Your task to perform on an android device: Clear the shopping cart on costco.com. Add lg ultragear to the cart on costco.com, then select checkout. Image 0: 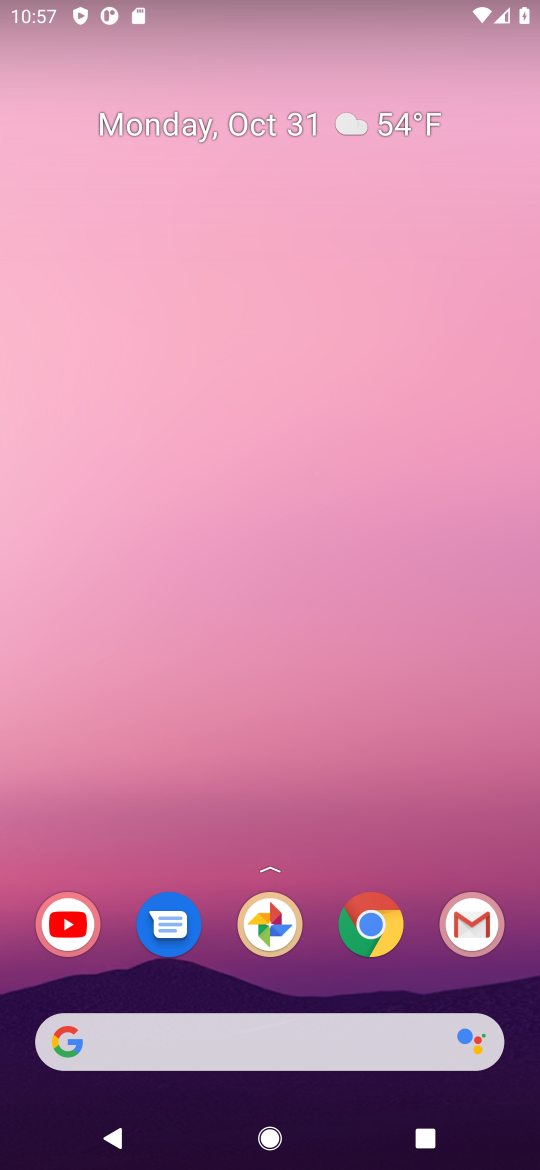
Step 0: press home button
Your task to perform on an android device: Clear the shopping cart on costco.com. Add lg ultragear to the cart on costco.com, then select checkout. Image 1: 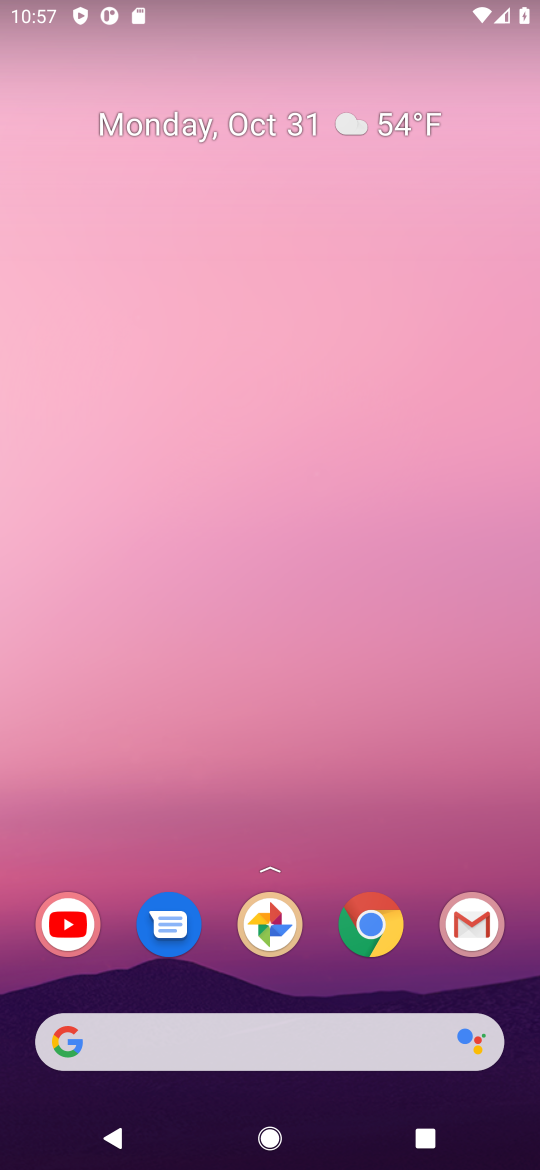
Step 1: click (392, 949)
Your task to perform on an android device: Clear the shopping cart on costco.com. Add lg ultragear to the cart on costco.com, then select checkout. Image 2: 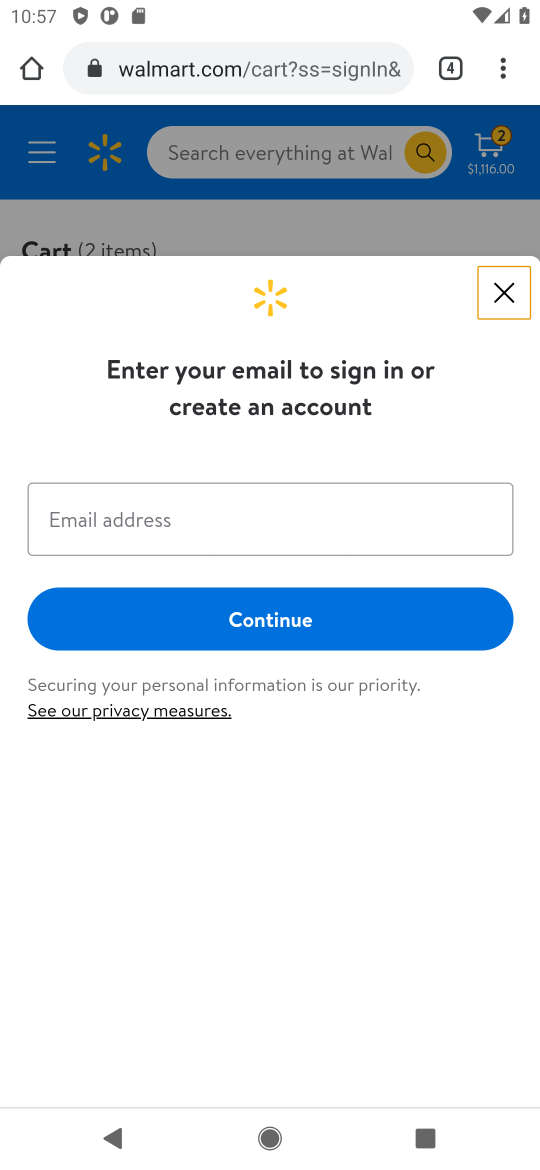
Step 2: click (273, 75)
Your task to perform on an android device: Clear the shopping cart on costco.com. Add lg ultragear to the cart on costco.com, then select checkout. Image 3: 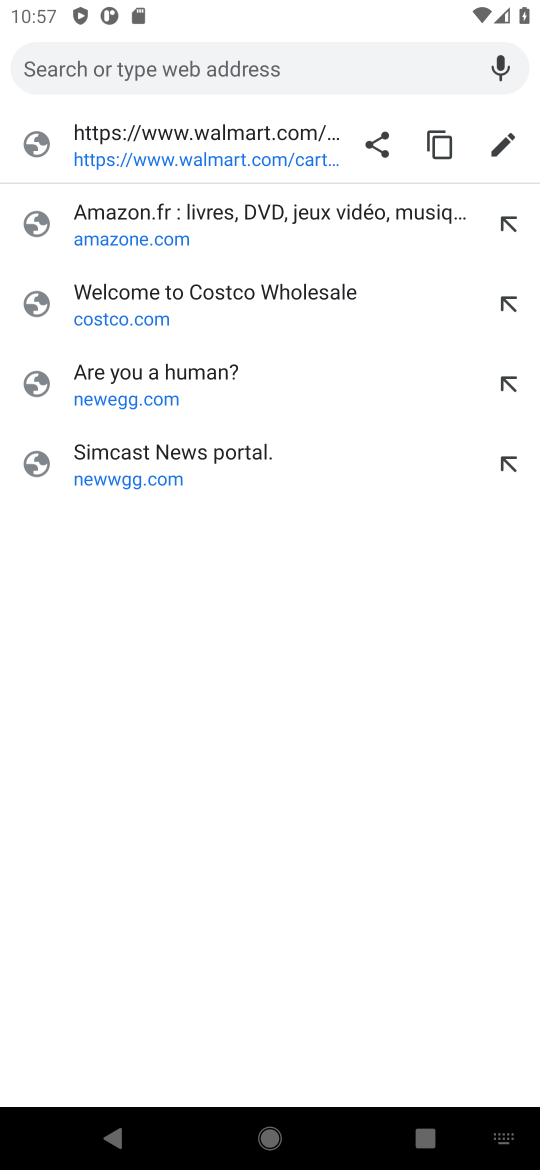
Step 3: type "costco.com"
Your task to perform on an android device: Clear the shopping cart on costco.com. Add lg ultragear to the cart on costco.com, then select checkout. Image 4: 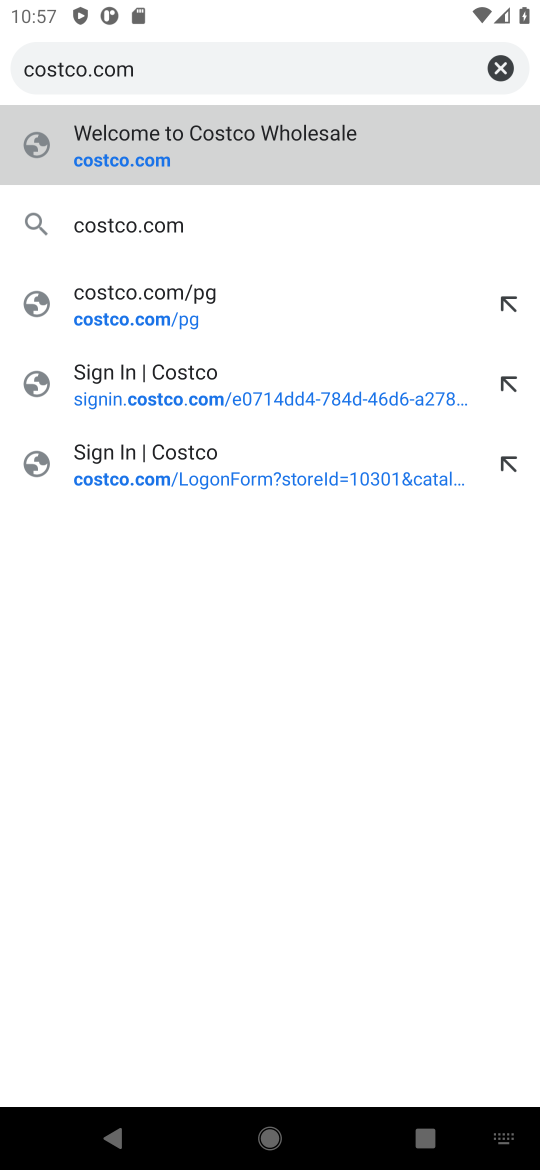
Step 4: type ""
Your task to perform on an android device: Clear the shopping cart on costco.com. Add lg ultragear to the cart on costco.com, then select checkout. Image 5: 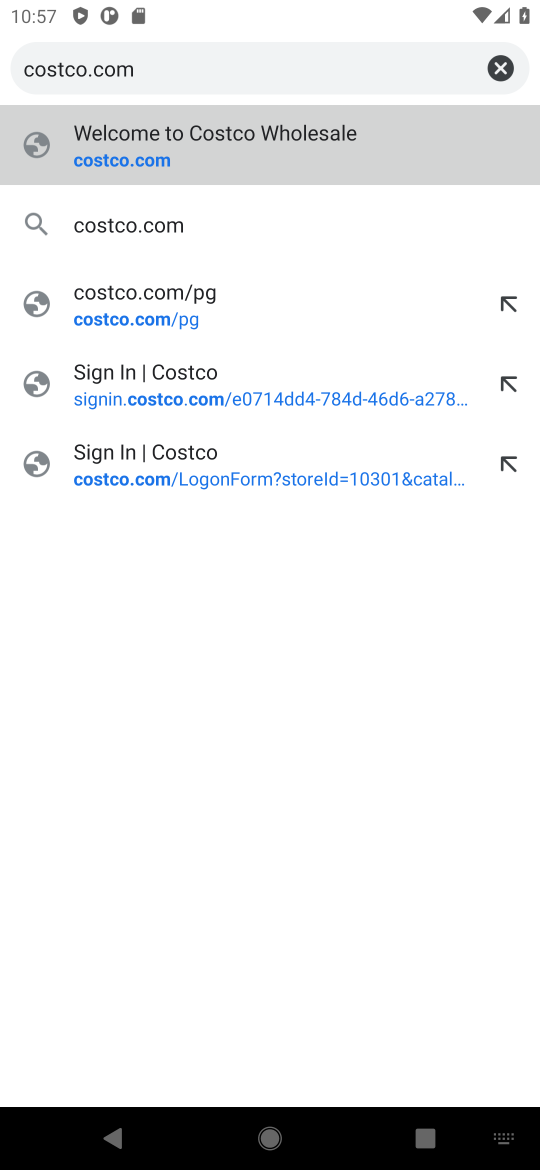
Step 5: click (214, 150)
Your task to perform on an android device: Clear the shopping cart on costco.com. Add lg ultragear to the cart on costco.com, then select checkout. Image 6: 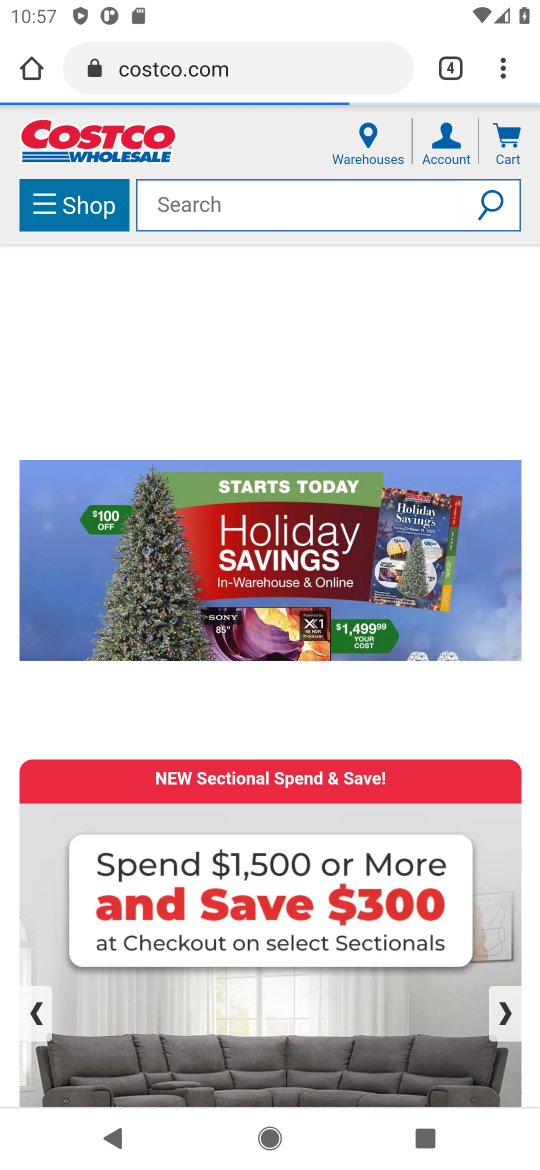
Step 6: click (224, 210)
Your task to perform on an android device: Clear the shopping cart on costco.com. Add lg ultragear to the cart on costco.com, then select checkout. Image 7: 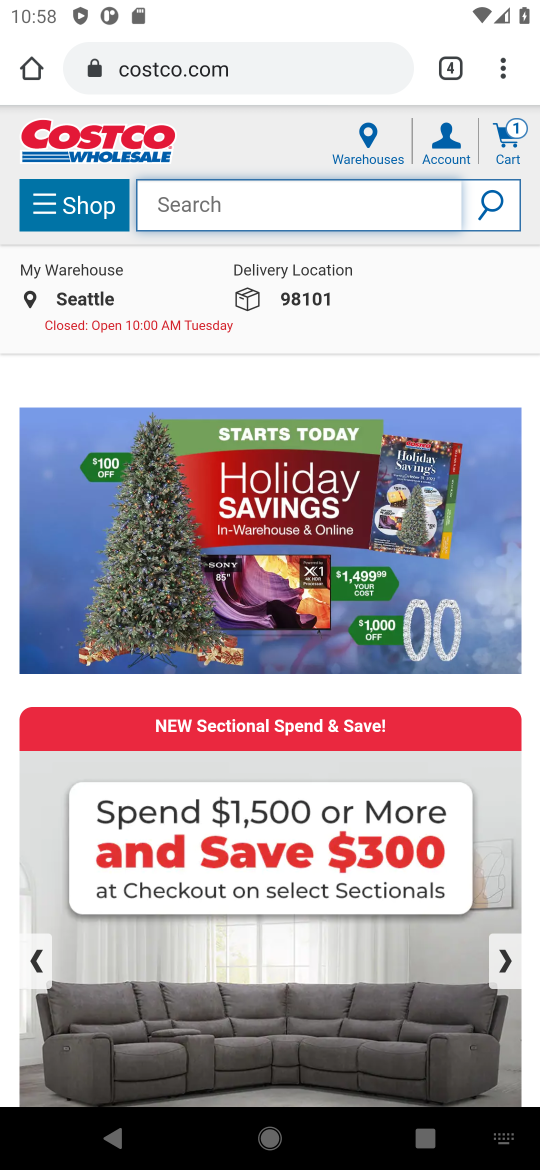
Step 7: type "lg ultragear"
Your task to perform on an android device: Clear the shopping cart on costco.com. Add lg ultragear to the cart on costco.com, then select checkout. Image 8: 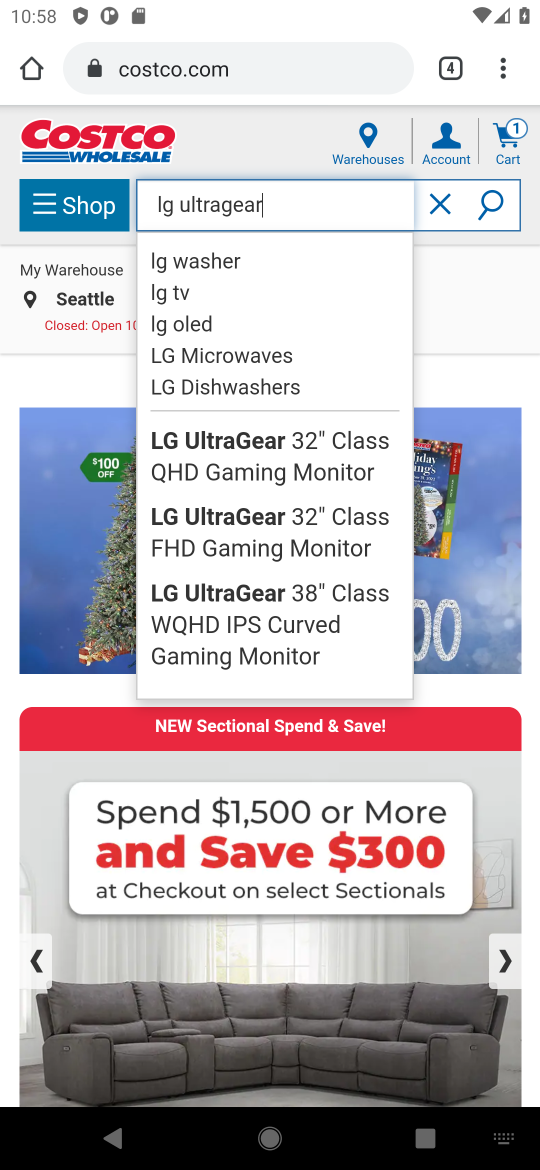
Step 8: click (338, 455)
Your task to perform on an android device: Clear the shopping cart on costco.com. Add lg ultragear to the cart on costco.com, then select checkout. Image 9: 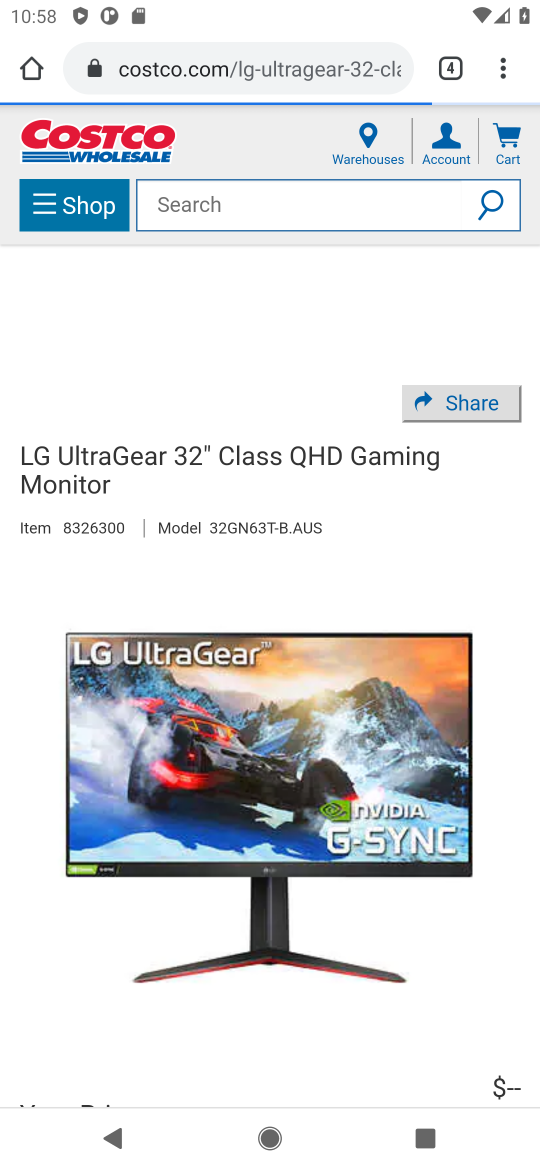
Step 9: click (253, 784)
Your task to perform on an android device: Clear the shopping cart on costco.com. Add lg ultragear to the cart on costco.com, then select checkout. Image 10: 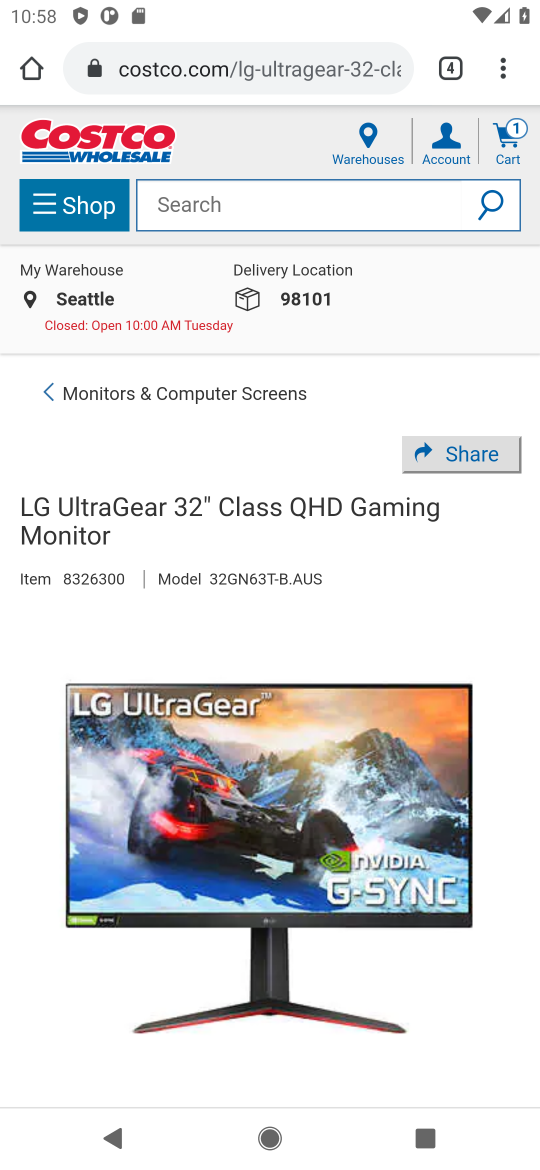
Step 10: drag from (254, 810) to (294, 433)
Your task to perform on an android device: Clear the shopping cart on costco.com. Add lg ultragear to the cart on costco.com, then select checkout. Image 11: 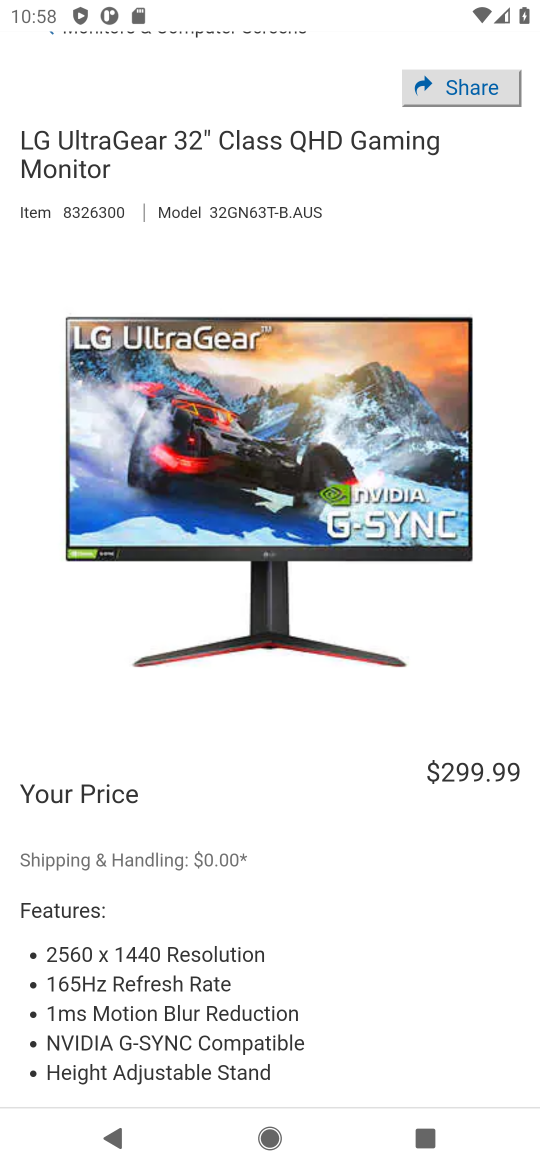
Step 11: drag from (258, 946) to (293, 542)
Your task to perform on an android device: Clear the shopping cart on costco.com. Add lg ultragear to the cart on costco.com, then select checkout. Image 12: 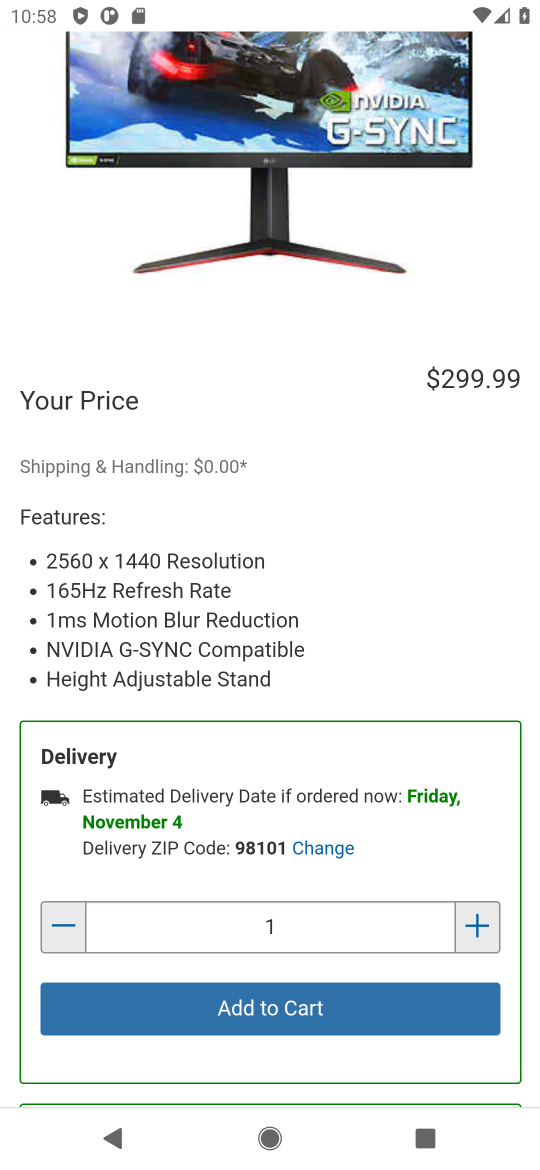
Step 12: click (285, 1005)
Your task to perform on an android device: Clear the shopping cart on costco.com. Add lg ultragear to the cart on costco.com, then select checkout. Image 13: 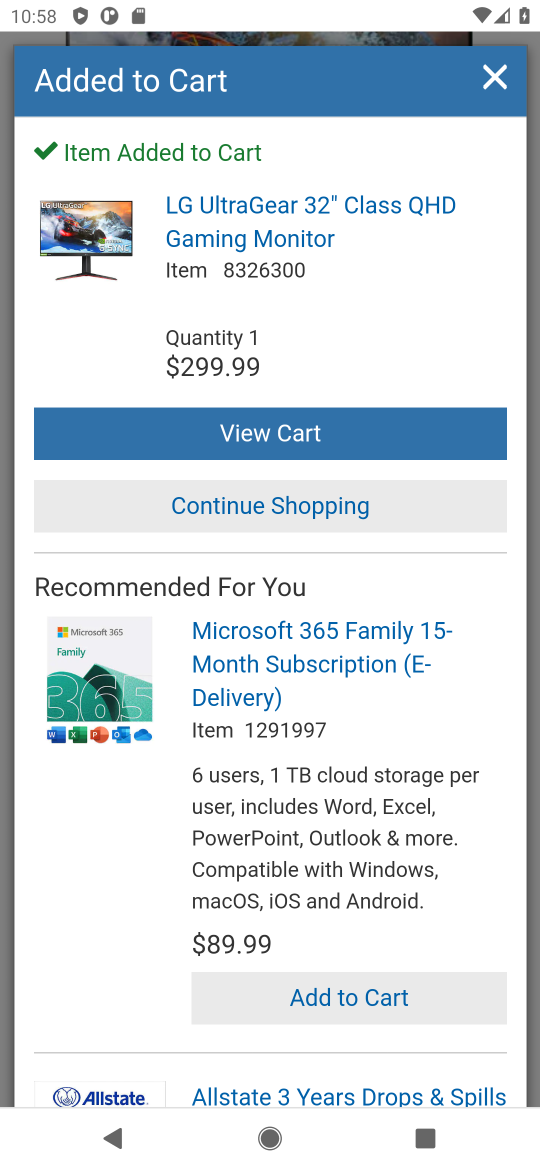
Step 13: click (498, 92)
Your task to perform on an android device: Clear the shopping cart on costco.com. Add lg ultragear to the cart on costco.com, then select checkout. Image 14: 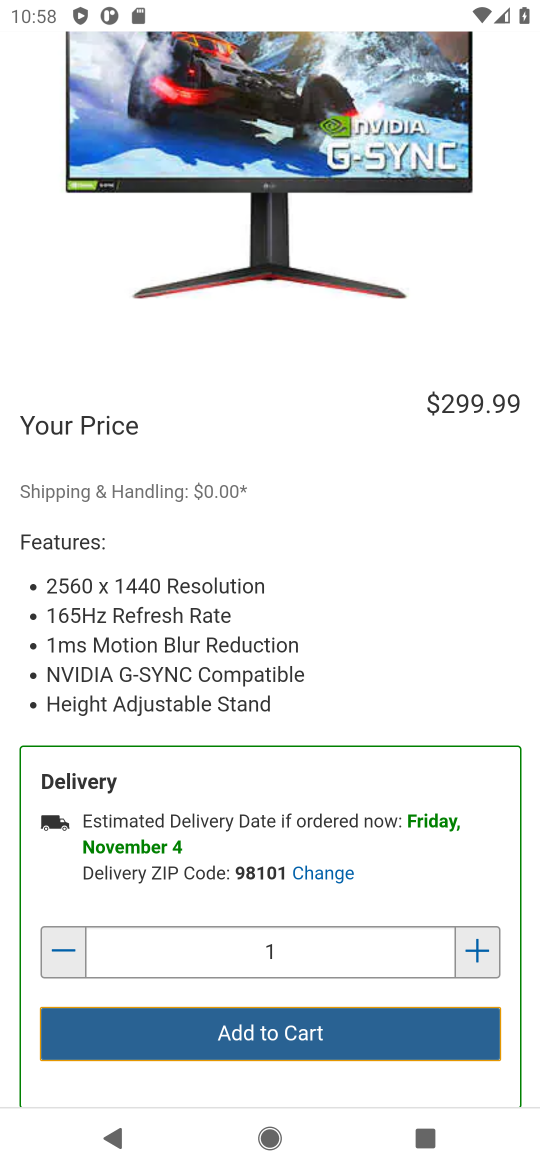
Step 14: drag from (318, 491) to (300, 1047)
Your task to perform on an android device: Clear the shopping cart on costco.com. Add lg ultragear to the cart on costco.com, then select checkout. Image 15: 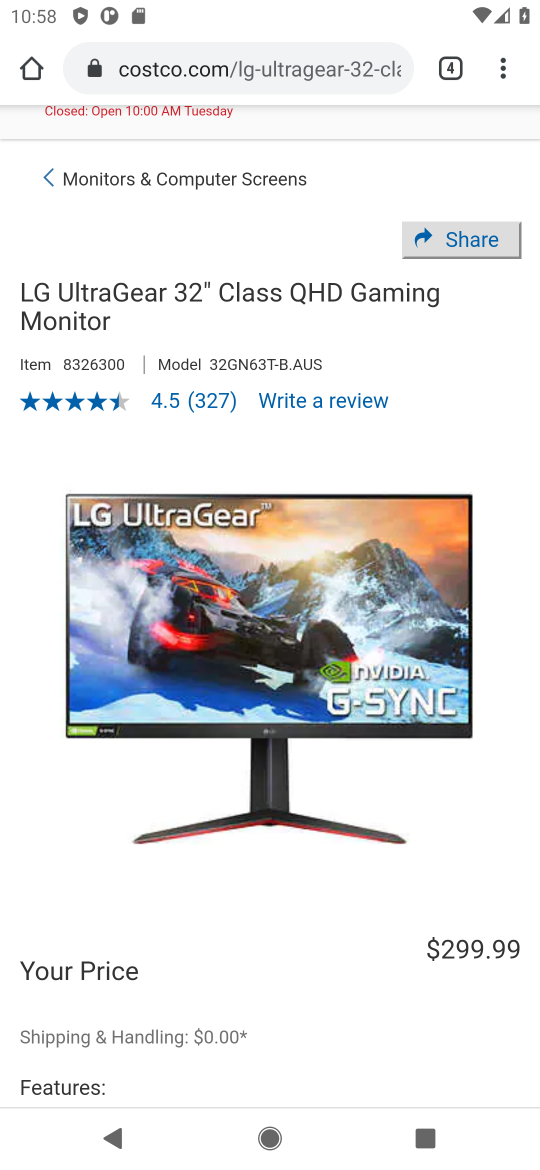
Step 15: drag from (312, 471) to (331, 1105)
Your task to perform on an android device: Clear the shopping cart on costco.com. Add lg ultragear to the cart on costco.com, then select checkout. Image 16: 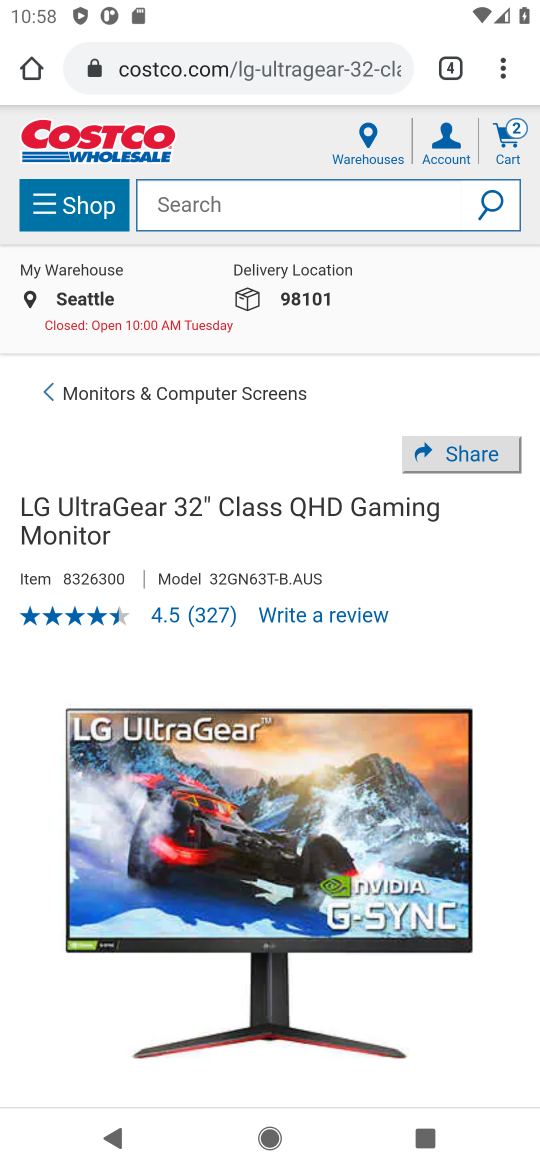
Step 16: click (506, 148)
Your task to perform on an android device: Clear the shopping cart on costco.com. Add lg ultragear to the cart on costco.com, then select checkout. Image 17: 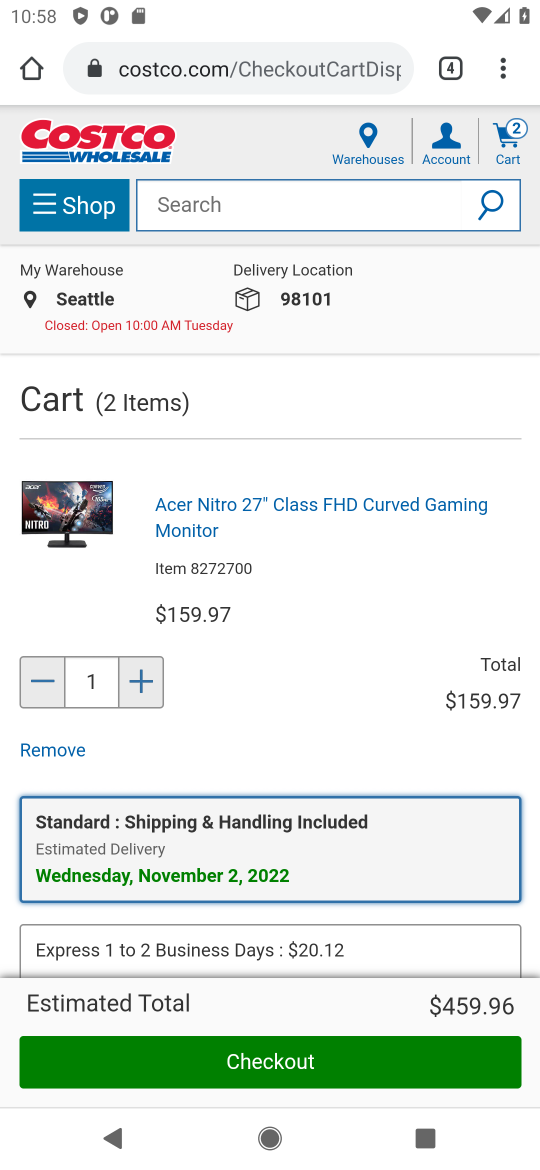
Step 17: drag from (290, 689) to (343, 402)
Your task to perform on an android device: Clear the shopping cart on costco.com. Add lg ultragear to the cart on costco.com, then select checkout. Image 18: 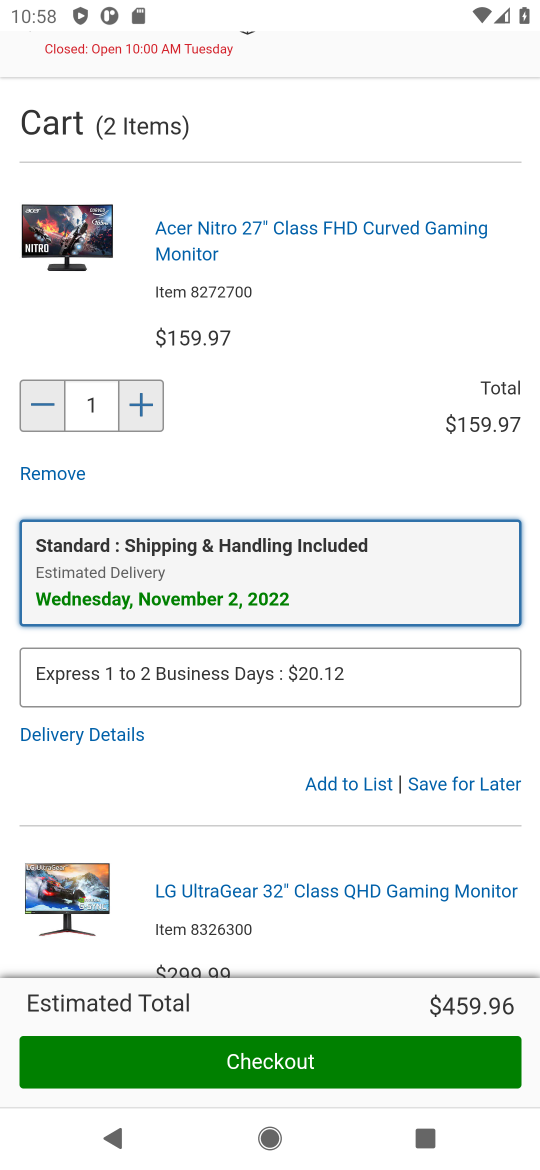
Step 18: drag from (245, 795) to (319, 529)
Your task to perform on an android device: Clear the shopping cart on costco.com. Add lg ultragear to the cart on costco.com, then select checkout. Image 19: 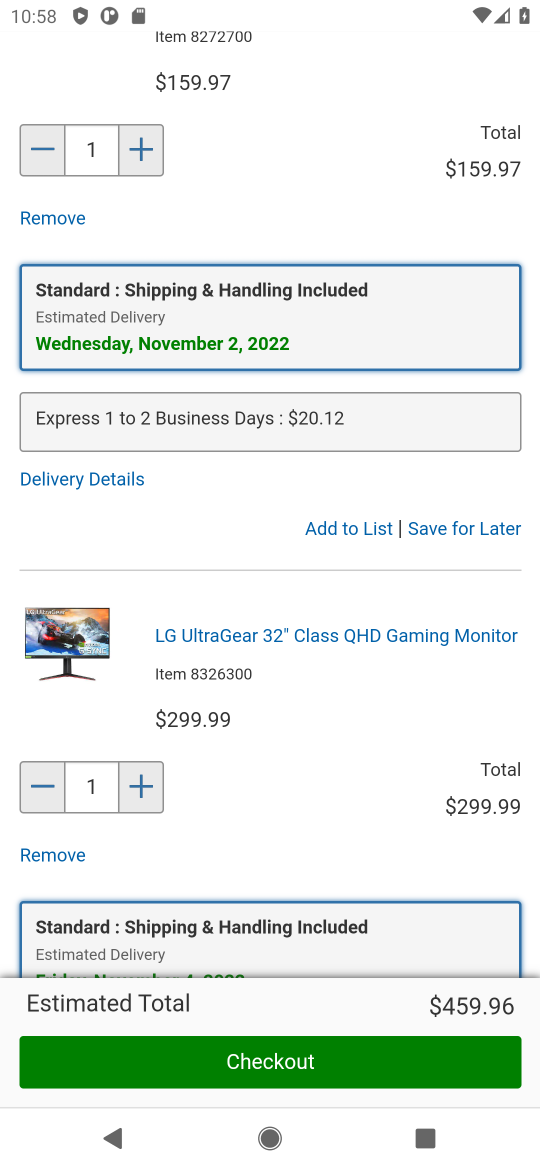
Step 19: drag from (238, 806) to (284, 623)
Your task to perform on an android device: Clear the shopping cart on costco.com. Add lg ultragear to the cart on costco.com, then select checkout. Image 20: 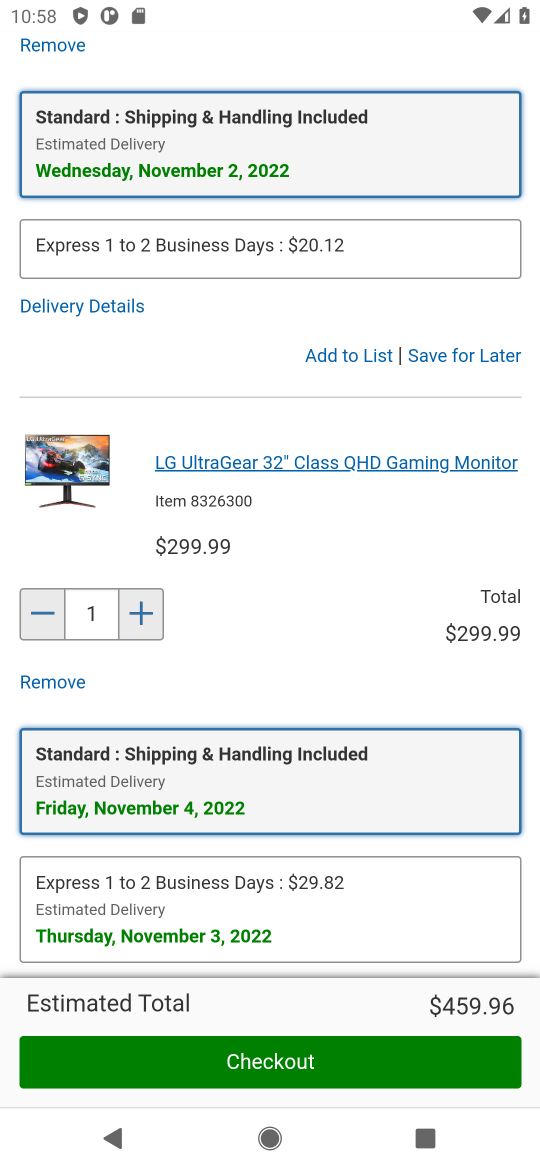
Step 20: click (309, 1069)
Your task to perform on an android device: Clear the shopping cart on costco.com. Add lg ultragear to the cart on costco.com, then select checkout. Image 21: 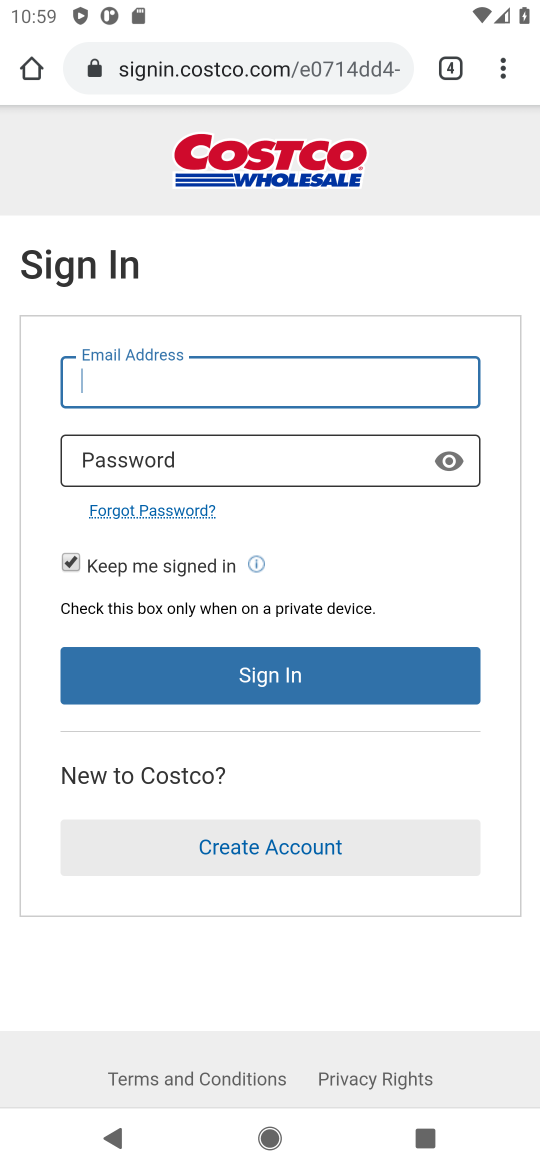
Step 21: task complete